Your task to perform on an android device: Open accessibility settings Image 0: 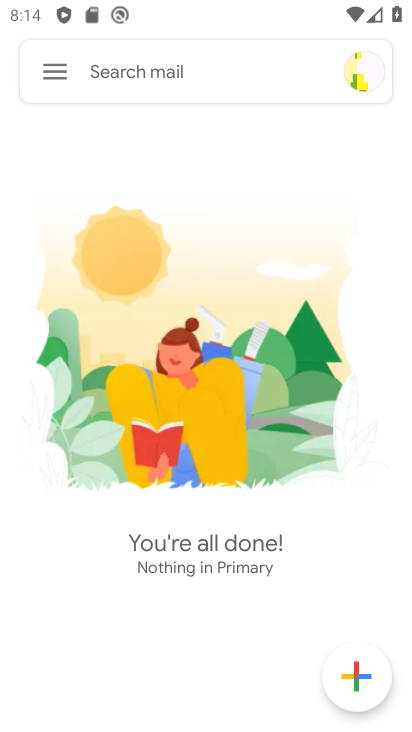
Step 0: press home button
Your task to perform on an android device: Open accessibility settings Image 1: 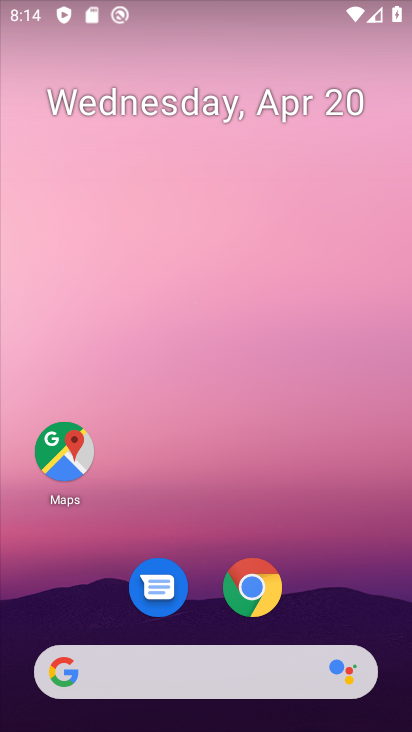
Step 1: drag from (349, 585) to (354, 182)
Your task to perform on an android device: Open accessibility settings Image 2: 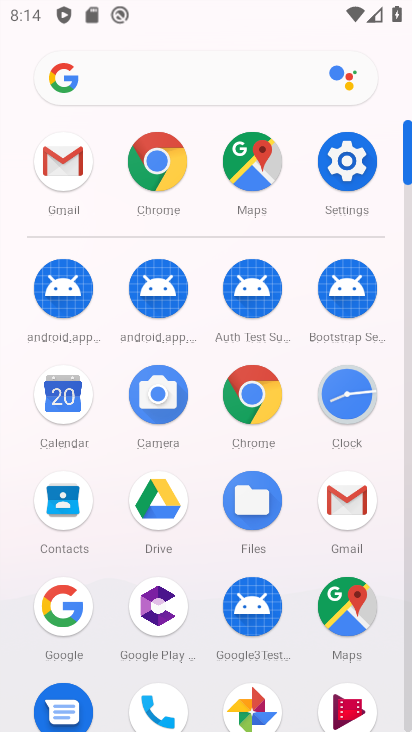
Step 2: click (348, 171)
Your task to perform on an android device: Open accessibility settings Image 3: 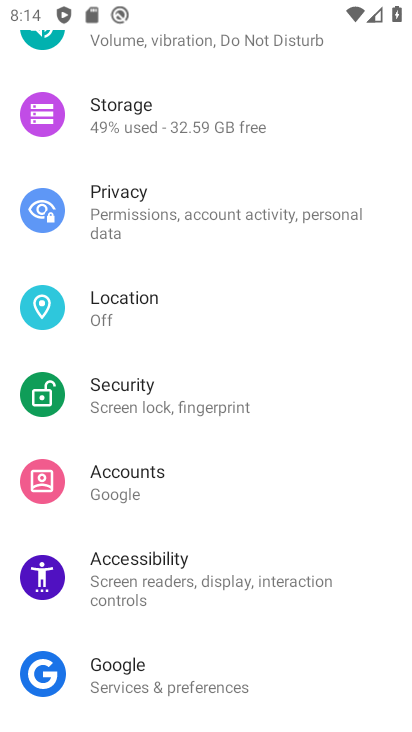
Step 3: drag from (353, 287) to (367, 421)
Your task to perform on an android device: Open accessibility settings Image 4: 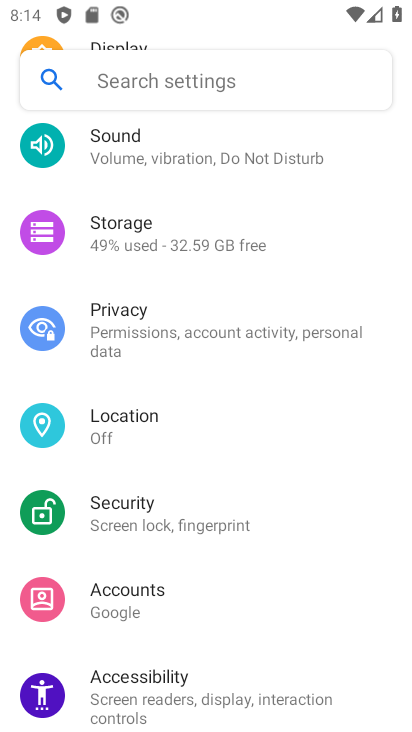
Step 4: drag from (388, 287) to (377, 419)
Your task to perform on an android device: Open accessibility settings Image 5: 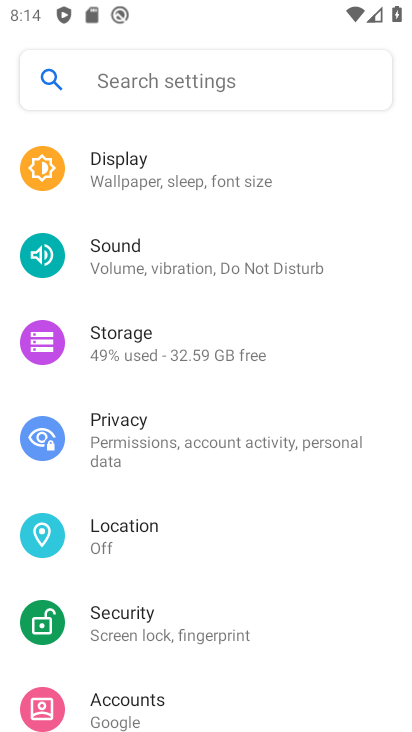
Step 5: drag from (374, 275) to (368, 390)
Your task to perform on an android device: Open accessibility settings Image 6: 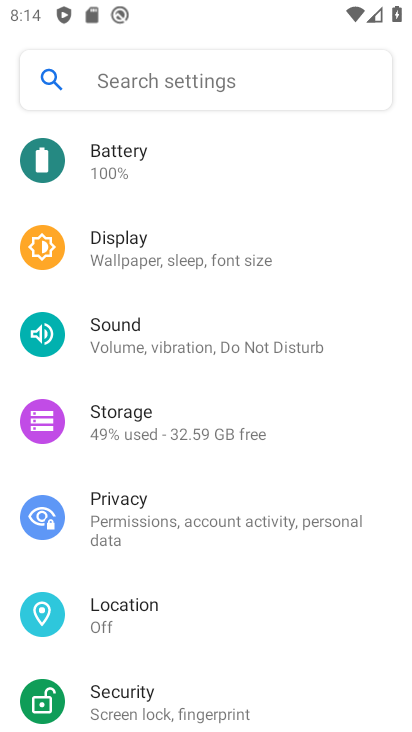
Step 6: drag from (380, 271) to (372, 413)
Your task to perform on an android device: Open accessibility settings Image 7: 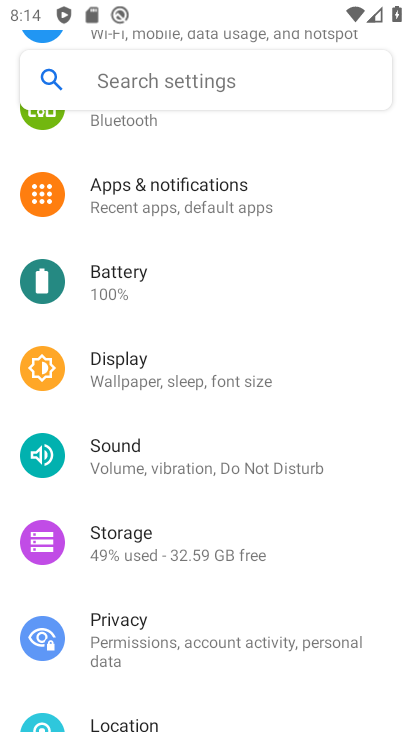
Step 7: drag from (358, 230) to (357, 402)
Your task to perform on an android device: Open accessibility settings Image 8: 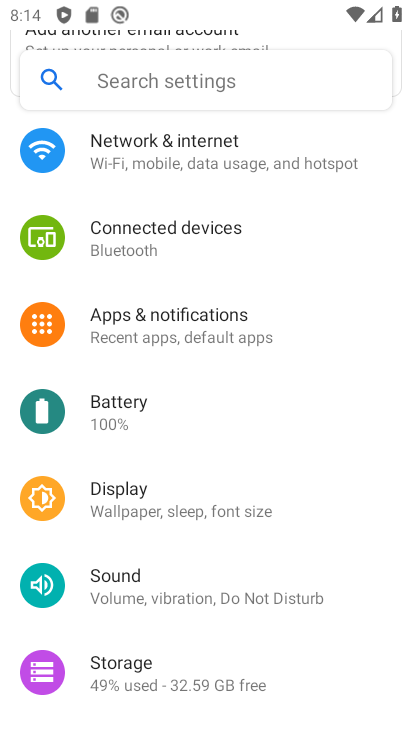
Step 8: drag from (356, 223) to (349, 362)
Your task to perform on an android device: Open accessibility settings Image 9: 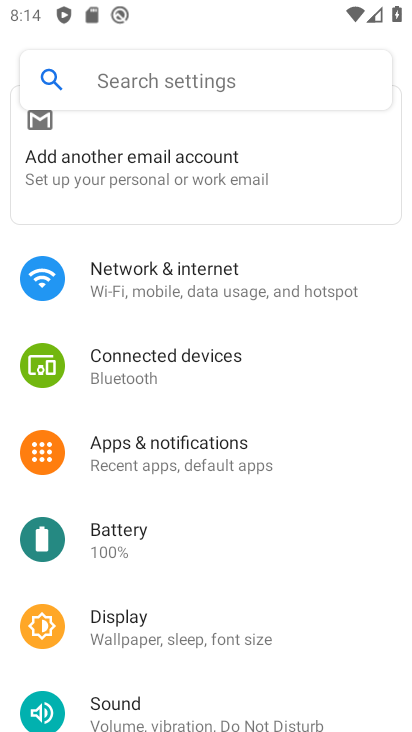
Step 9: drag from (373, 455) to (371, 344)
Your task to perform on an android device: Open accessibility settings Image 10: 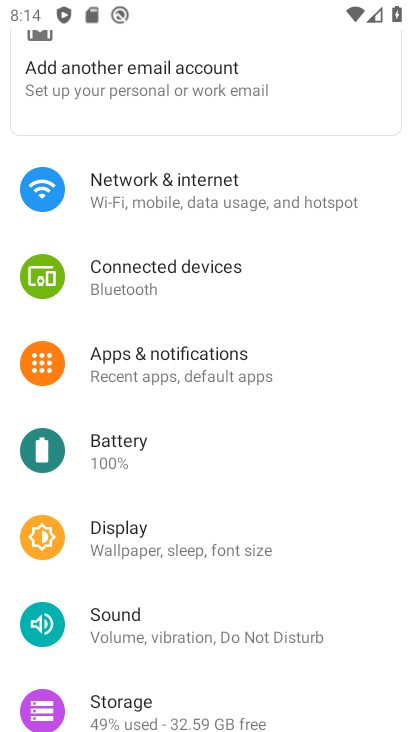
Step 10: drag from (349, 487) to (363, 341)
Your task to perform on an android device: Open accessibility settings Image 11: 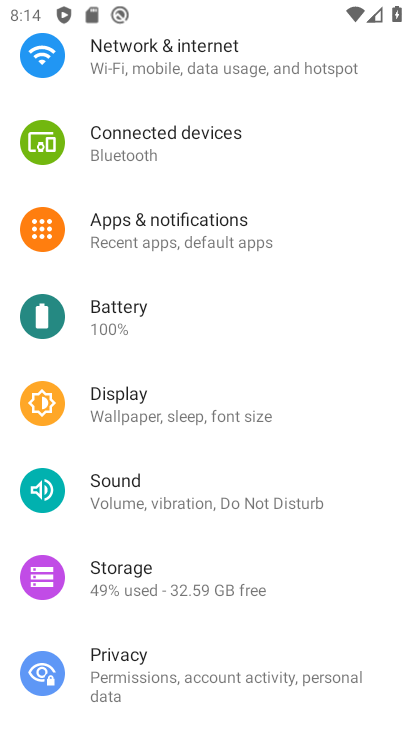
Step 11: drag from (347, 546) to (358, 409)
Your task to perform on an android device: Open accessibility settings Image 12: 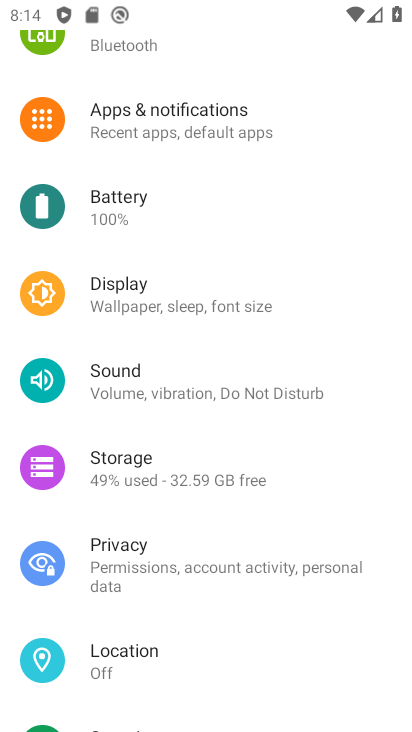
Step 12: drag from (360, 515) to (360, 390)
Your task to perform on an android device: Open accessibility settings Image 13: 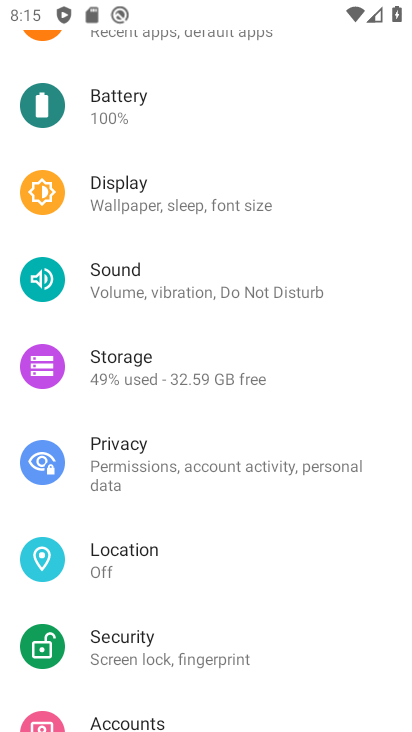
Step 13: drag from (362, 569) to (359, 440)
Your task to perform on an android device: Open accessibility settings Image 14: 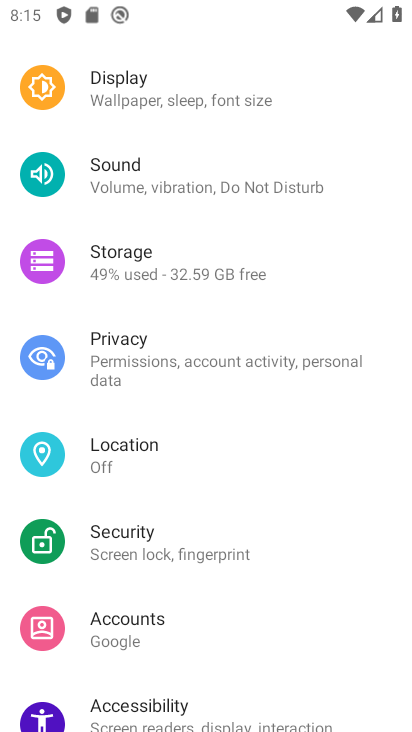
Step 14: drag from (340, 554) to (351, 442)
Your task to perform on an android device: Open accessibility settings Image 15: 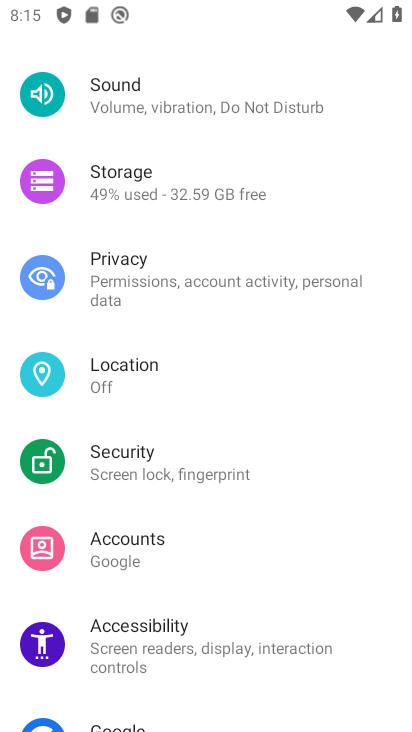
Step 15: click (280, 638)
Your task to perform on an android device: Open accessibility settings Image 16: 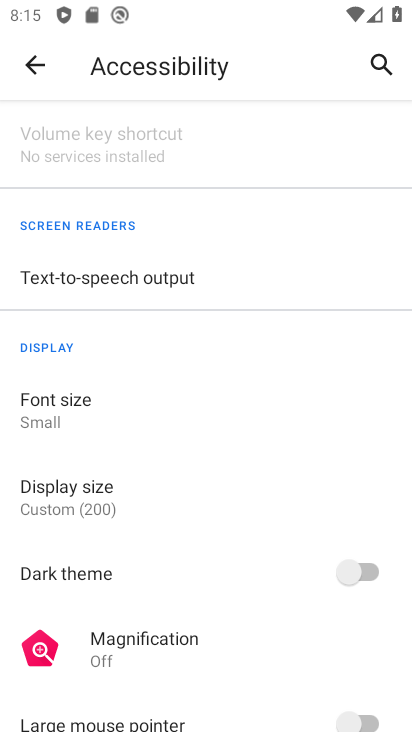
Step 16: task complete